Your task to perform on an android device: check data usage Image 0: 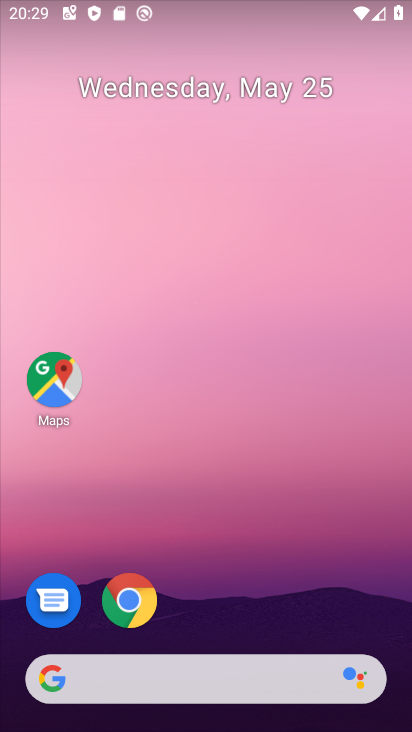
Step 0: drag from (356, 589) to (259, 29)
Your task to perform on an android device: check data usage Image 1: 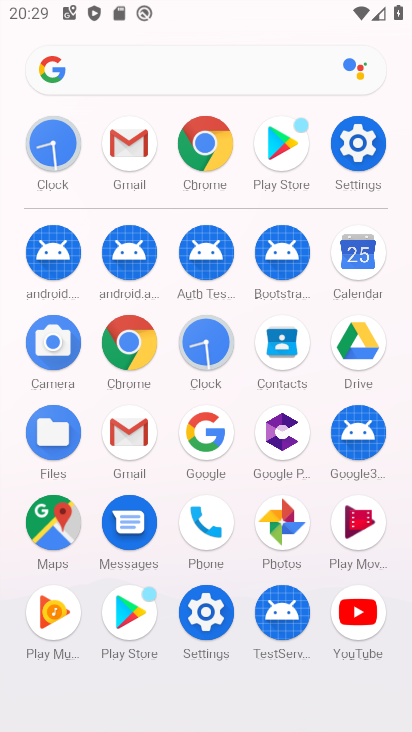
Step 1: click (202, 611)
Your task to perform on an android device: check data usage Image 2: 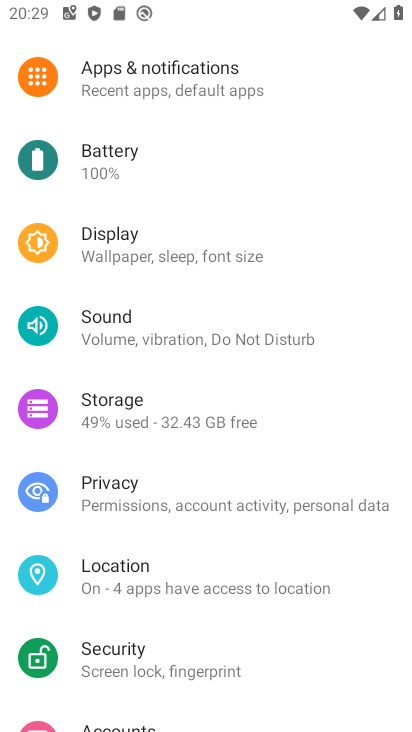
Step 2: drag from (198, 105) to (214, 670)
Your task to perform on an android device: check data usage Image 3: 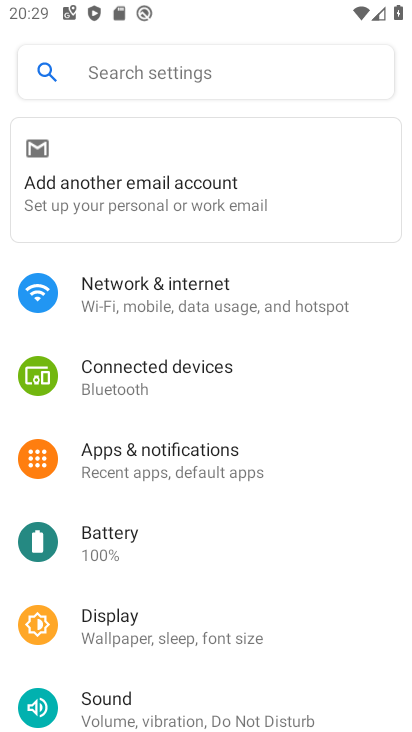
Step 3: click (180, 292)
Your task to perform on an android device: check data usage Image 4: 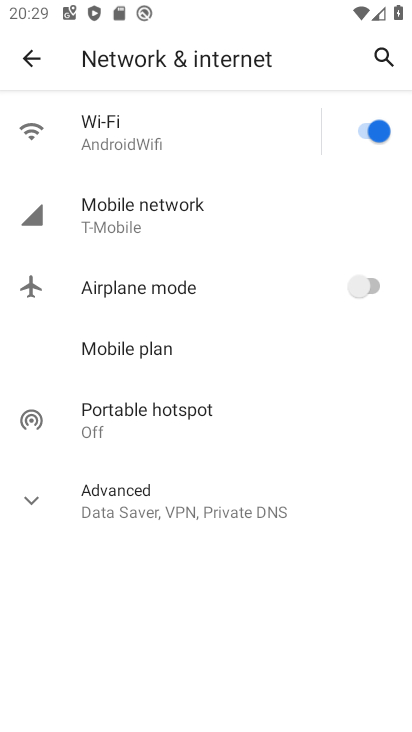
Step 4: click (137, 203)
Your task to perform on an android device: check data usage Image 5: 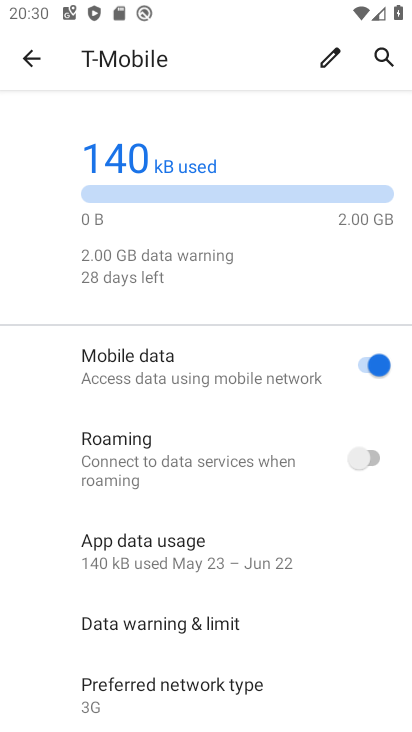
Step 5: task complete